Your task to perform on an android device: Open settings Image 0: 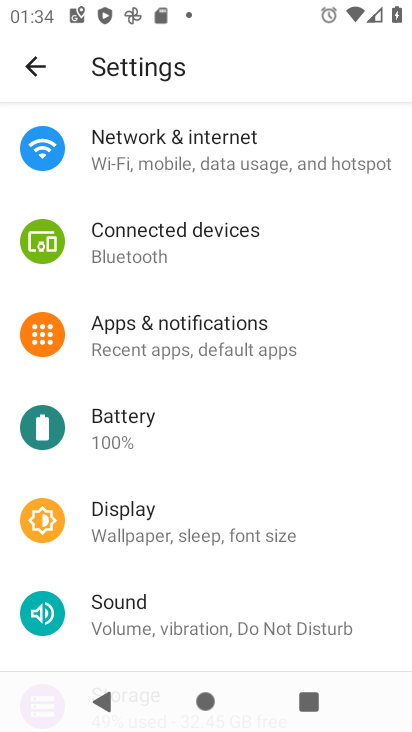
Step 0: press home button
Your task to perform on an android device: Open settings Image 1: 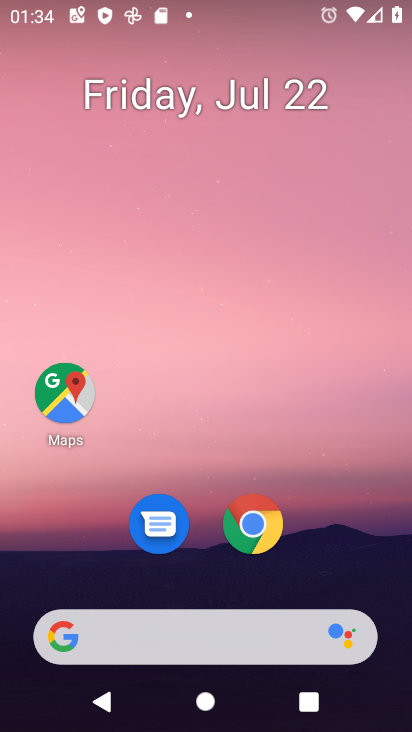
Step 1: drag from (194, 638) to (207, 28)
Your task to perform on an android device: Open settings Image 2: 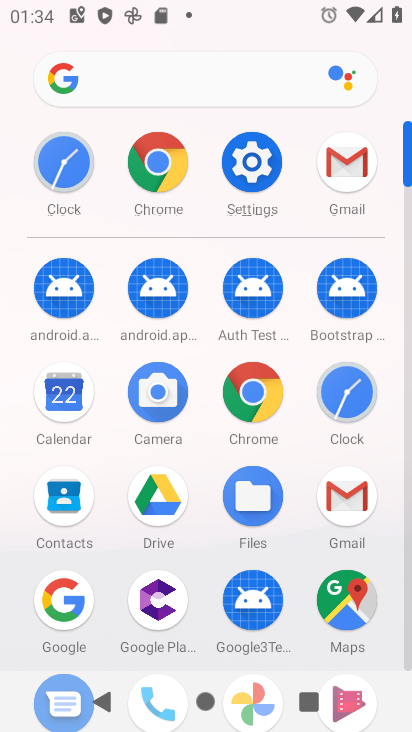
Step 2: click (256, 167)
Your task to perform on an android device: Open settings Image 3: 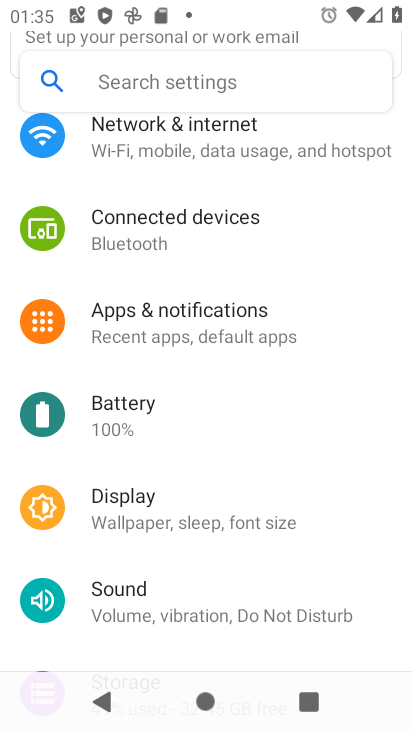
Step 3: task complete